Your task to perform on an android device: Do I have any events this weekend? Image 0: 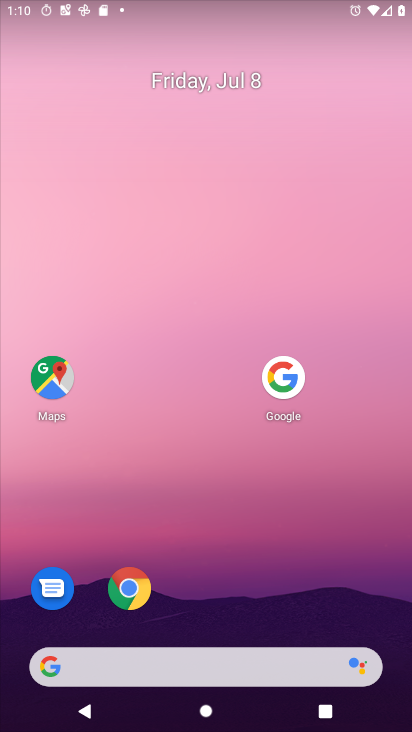
Step 0: press home button
Your task to perform on an android device: Do I have any events this weekend? Image 1: 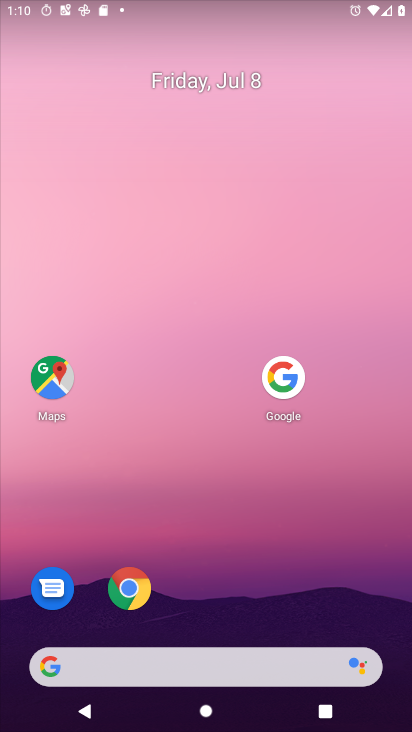
Step 1: drag from (156, 643) to (187, 117)
Your task to perform on an android device: Do I have any events this weekend? Image 2: 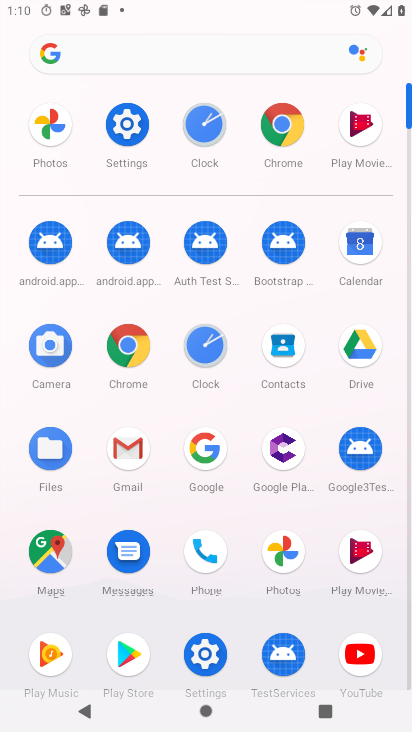
Step 2: click (353, 248)
Your task to perform on an android device: Do I have any events this weekend? Image 3: 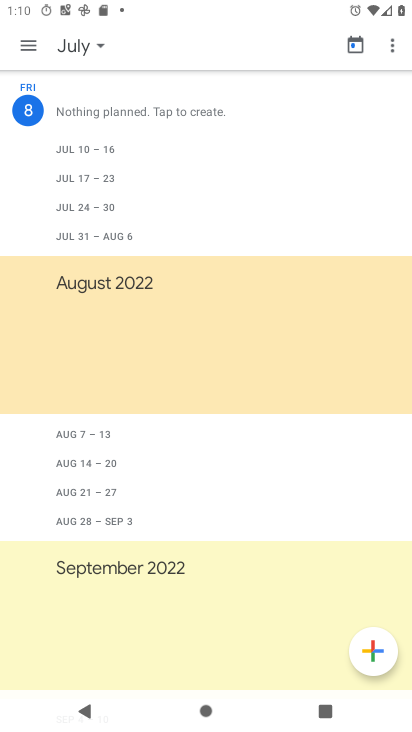
Step 3: click (85, 45)
Your task to perform on an android device: Do I have any events this weekend? Image 4: 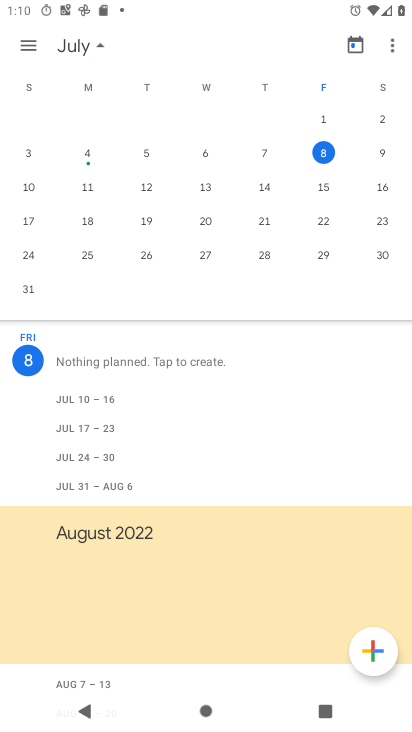
Step 4: click (385, 140)
Your task to perform on an android device: Do I have any events this weekend? Image 5: 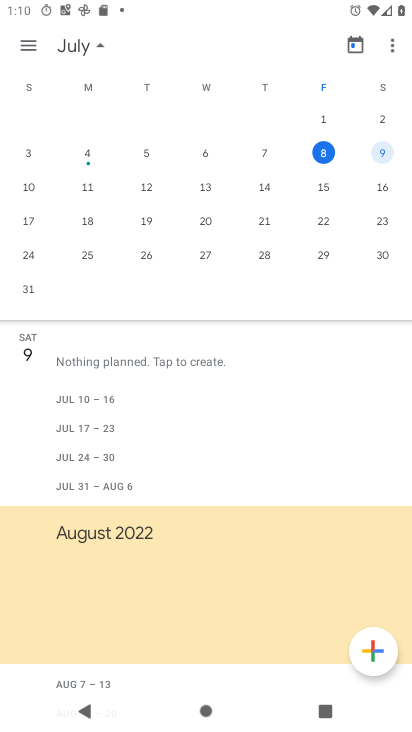
Step 5: click (24, 49)
Your task to perform on an android device: Do I have any events this weekend? Image 6: 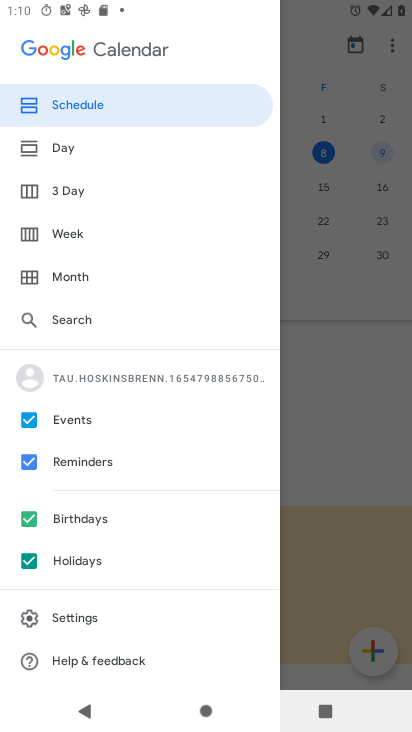
Step 6: click (86, 107)
Your task to perform on an android device: Do I have any events this weekend? Image 7: 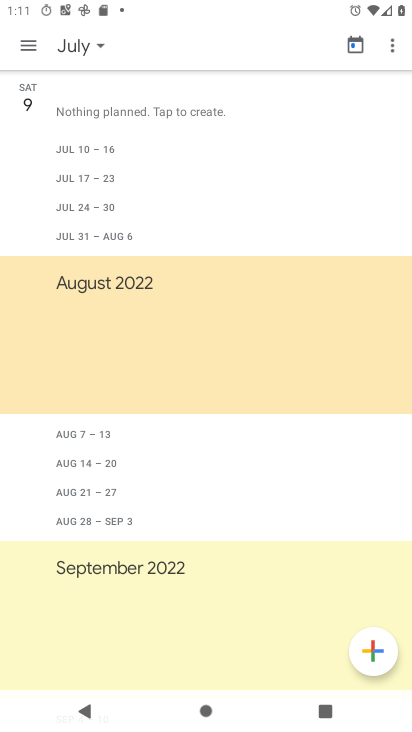
Step 7: task complete